Your task to perform on an android device: set the timer Image 0: 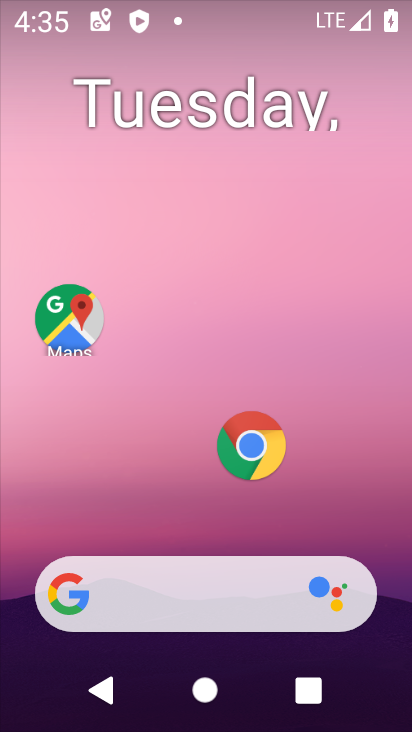
Step 0: drag from (157, 536) to (242, 78)
Your task to perform on an android device: set the timer Image 1: 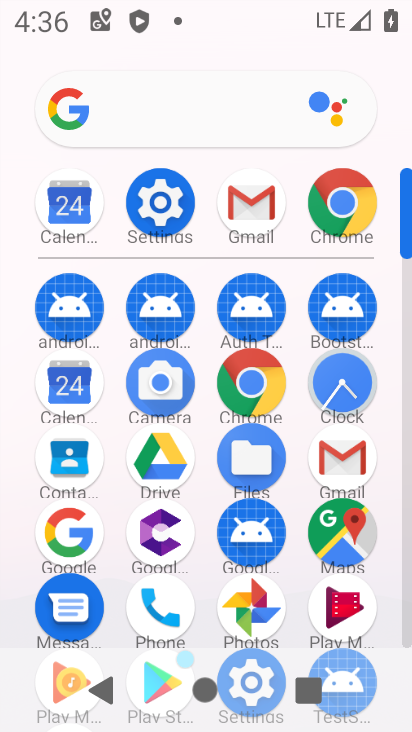
Step 1: click (350, 387)
Your task to perform on an android device: set the timer Image 2: 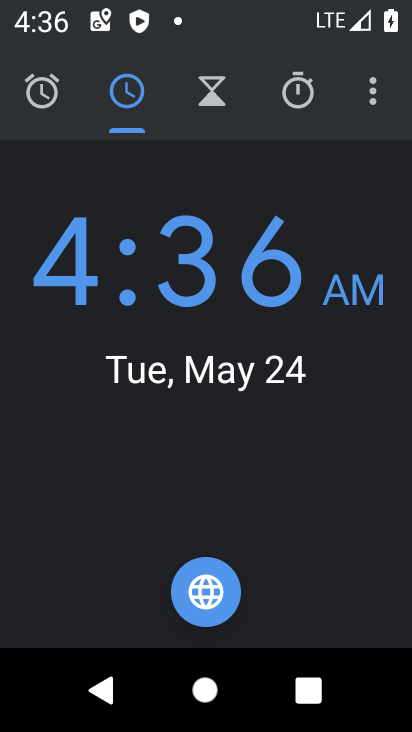
Step 2: click (330, 383)
Your task to perform on an android device: set the timer Image 3: 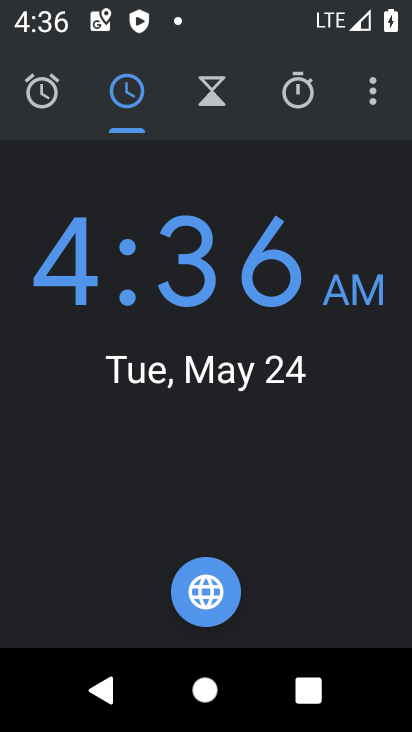
Step 3: click (350, 380)
Your task to perform on an android device: set the timer Image 4: 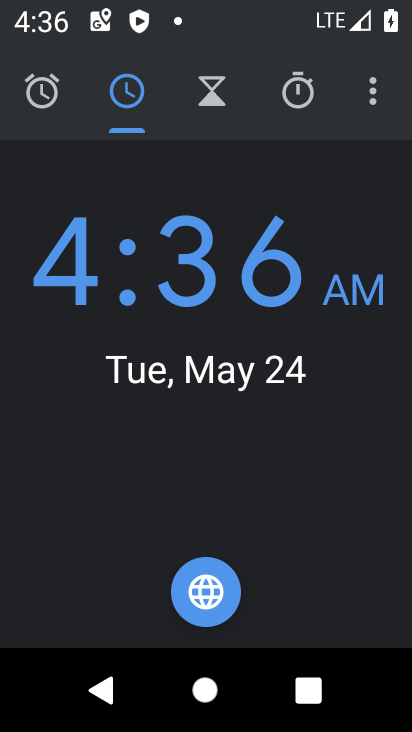
Step 4: click (216, 106)
Your task to perform on an android device: set the timer Image 5: 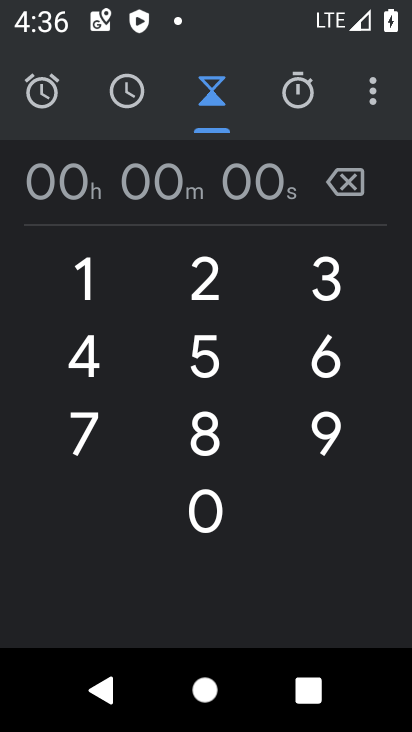
Step 5: click (214, 111)
Your task to perform on an android device: set the timer Image 6: 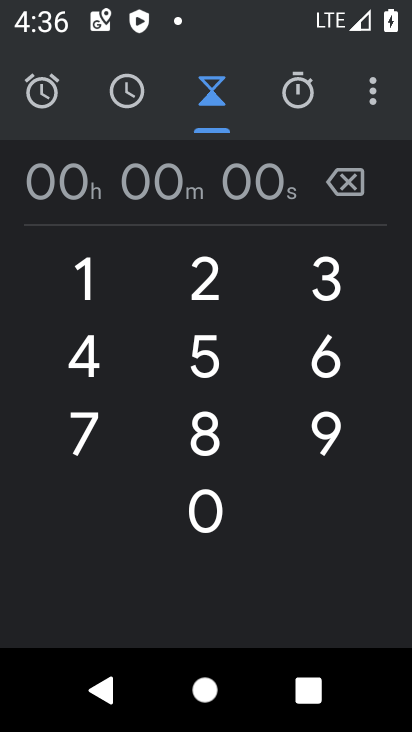
Step 6: click (206, 426)
Your task to perform on an android device: set the timer Image 7: 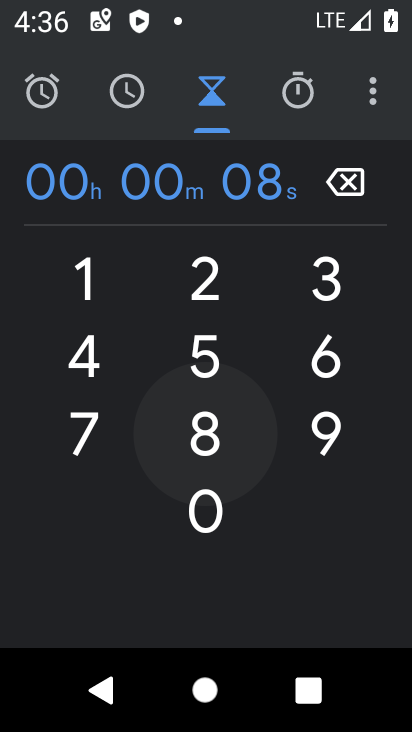
Step 7: click (79, 358)
Your task to perform on an android device: set the timer Image 8: 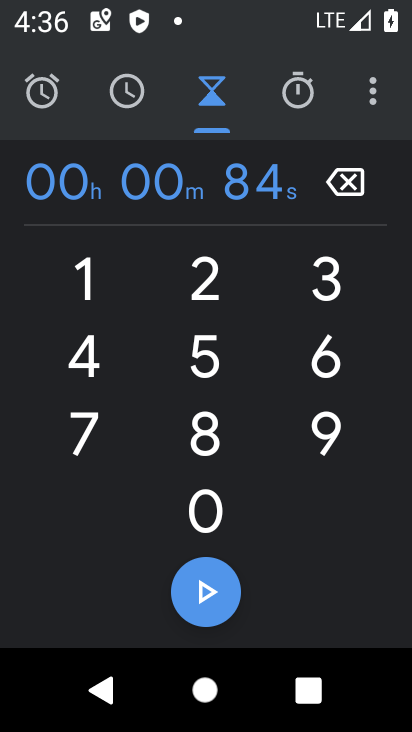
Step 8: click (198, 351)
Your task to perform on an android device: set the timer Image 9: 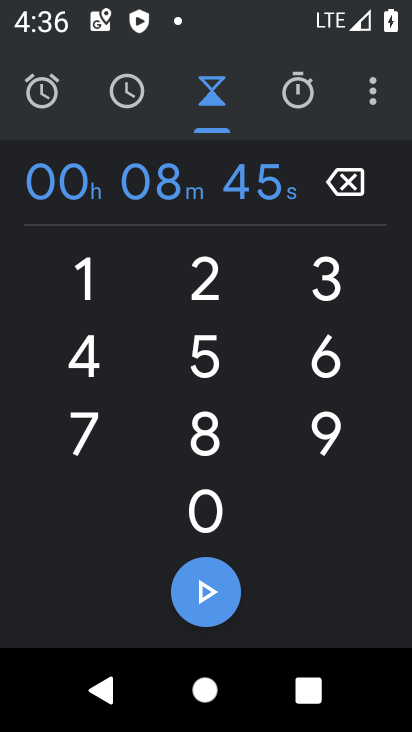
Step 9: click (212, 603)
Your task to perform on an android device: set the timer Image 10: 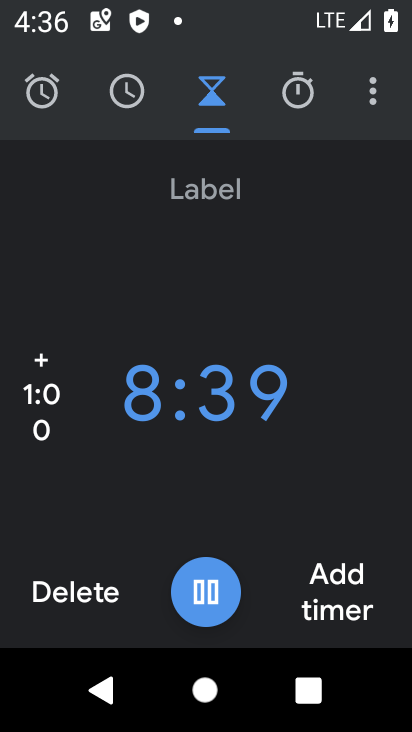
Step 10: task complete